Your task to perform on an android device: Do I have any events today? Image 0: 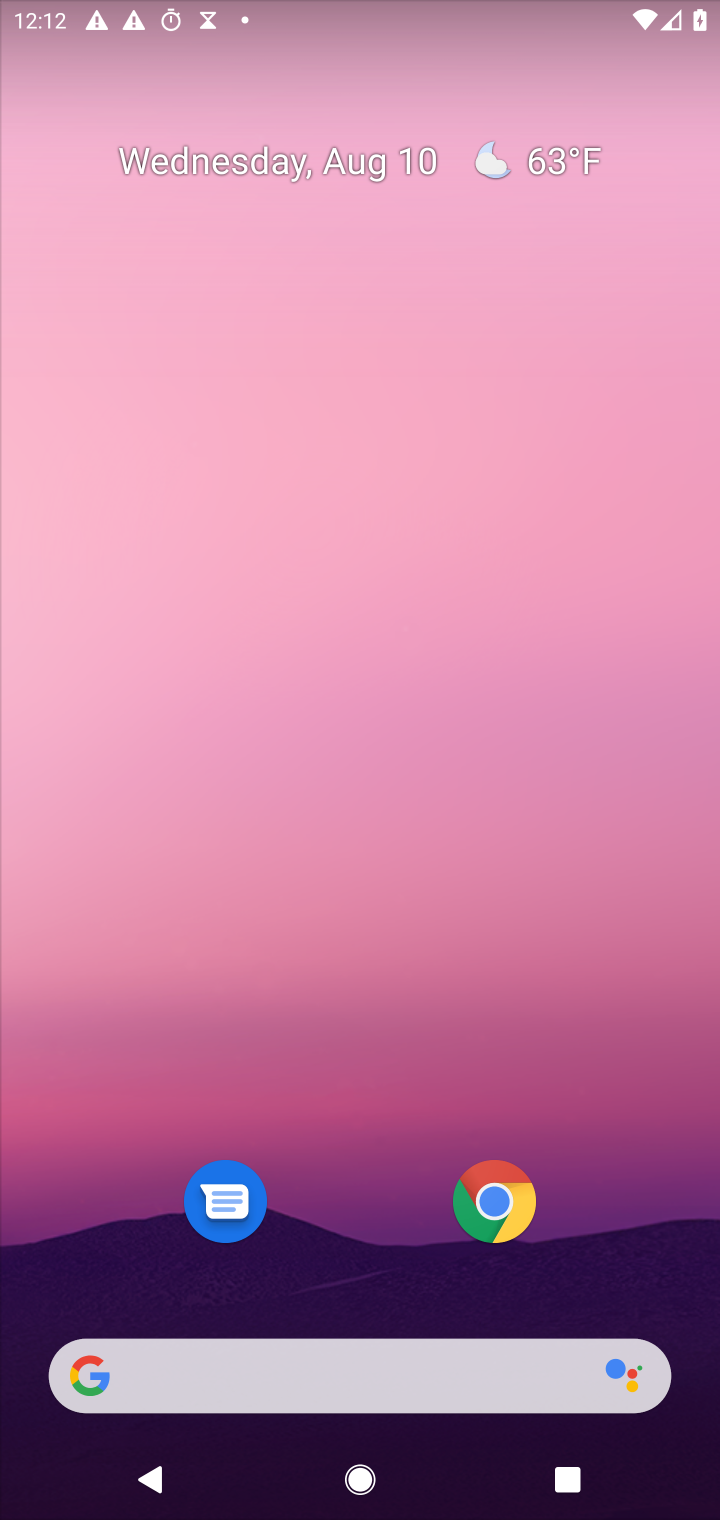
Step 0: press home button
Your task to perform on an android device: Do I have any events today? Image 1: 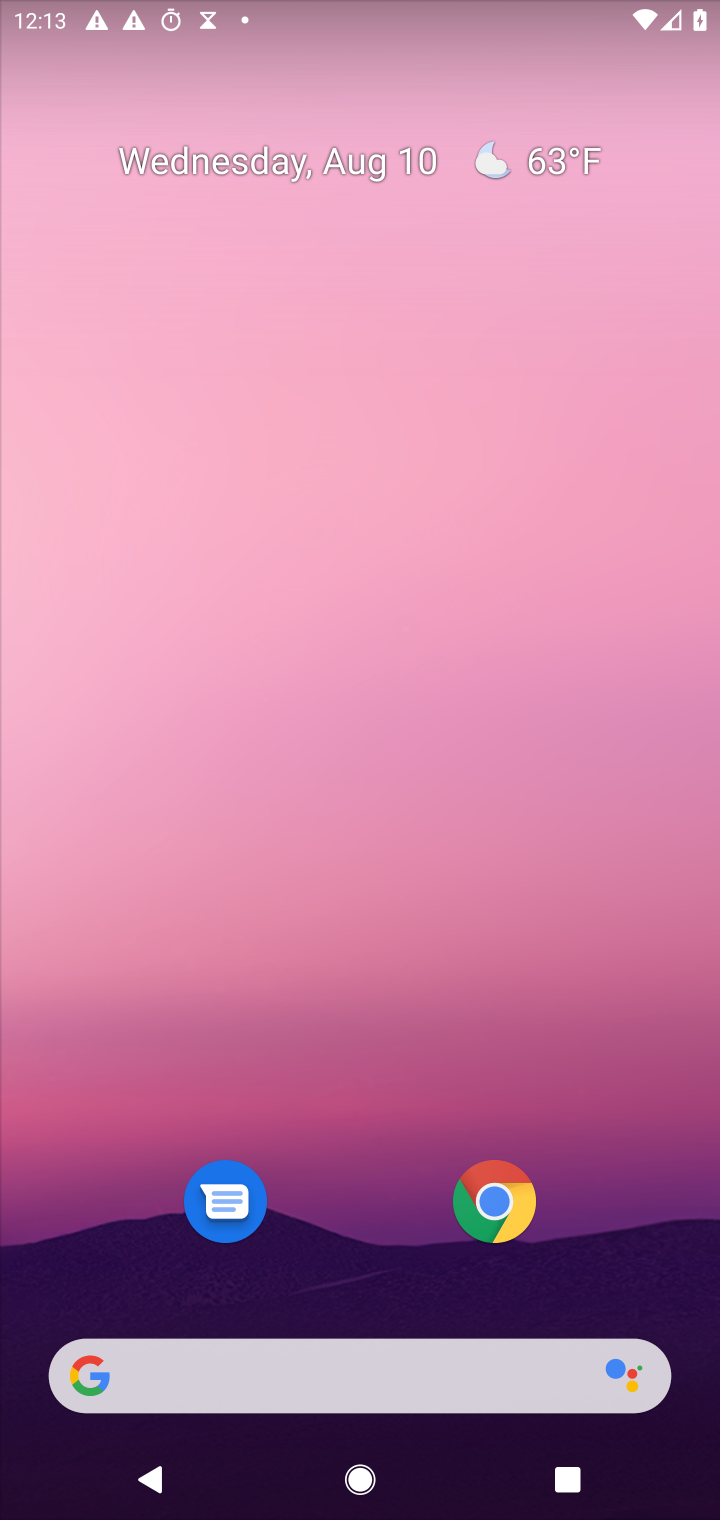
Step 1: drag from (348, 1277) to (639, 11)
Your task to perform on an android device: Do I have any events today? Image 2: 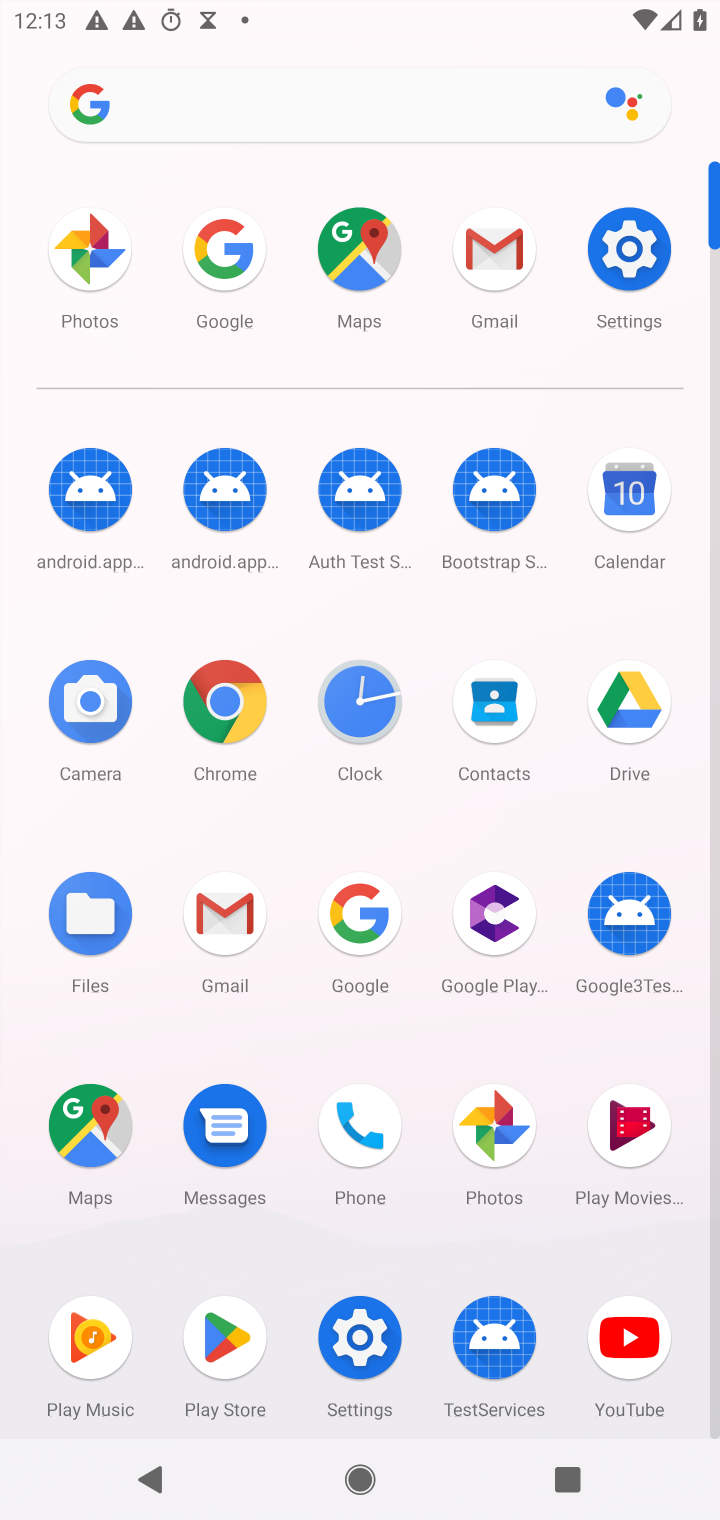
Step 2: click (634, 514)
Your task to perform on an android device: Do I have any events today? Image 3: 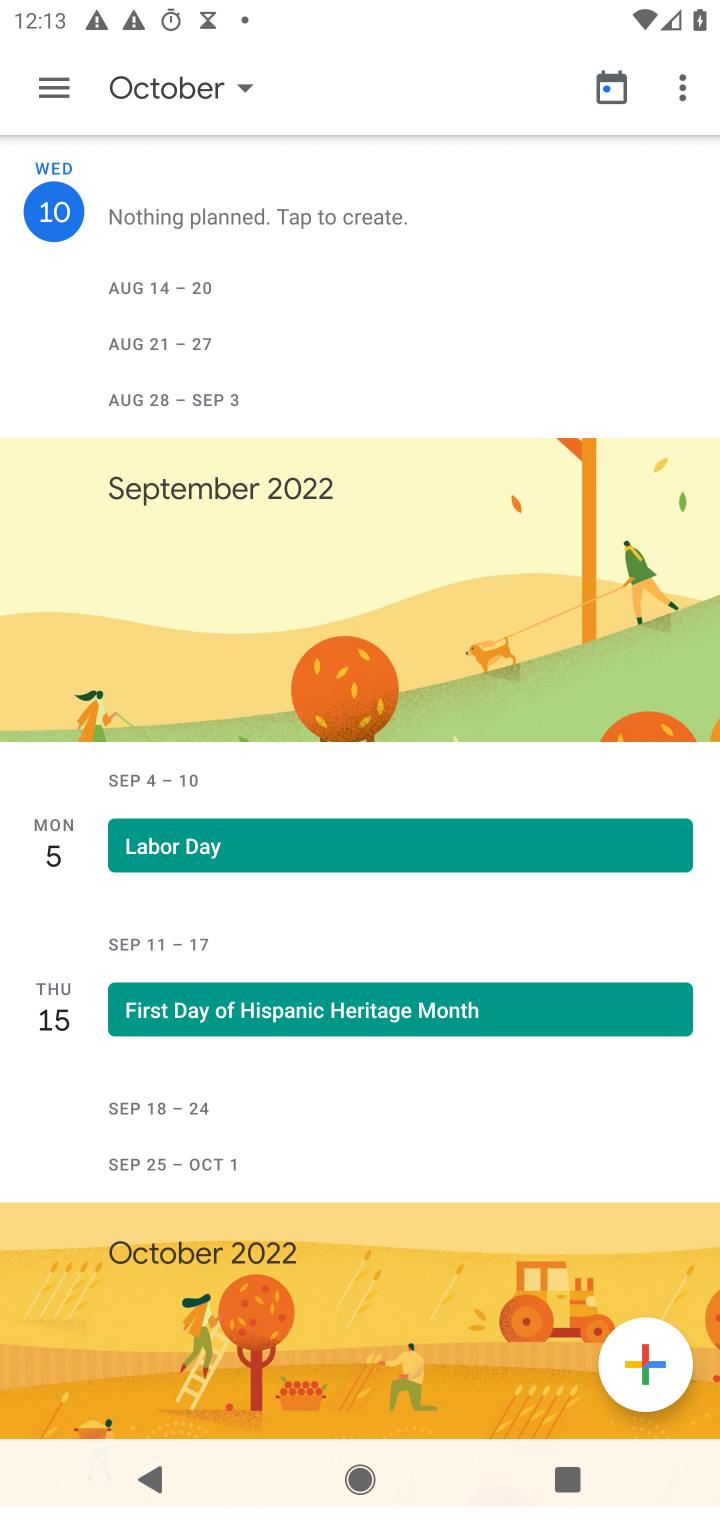
Step 3: click (49, 218)
Your task to perform on an android device: Do I have any events today? Image 4: 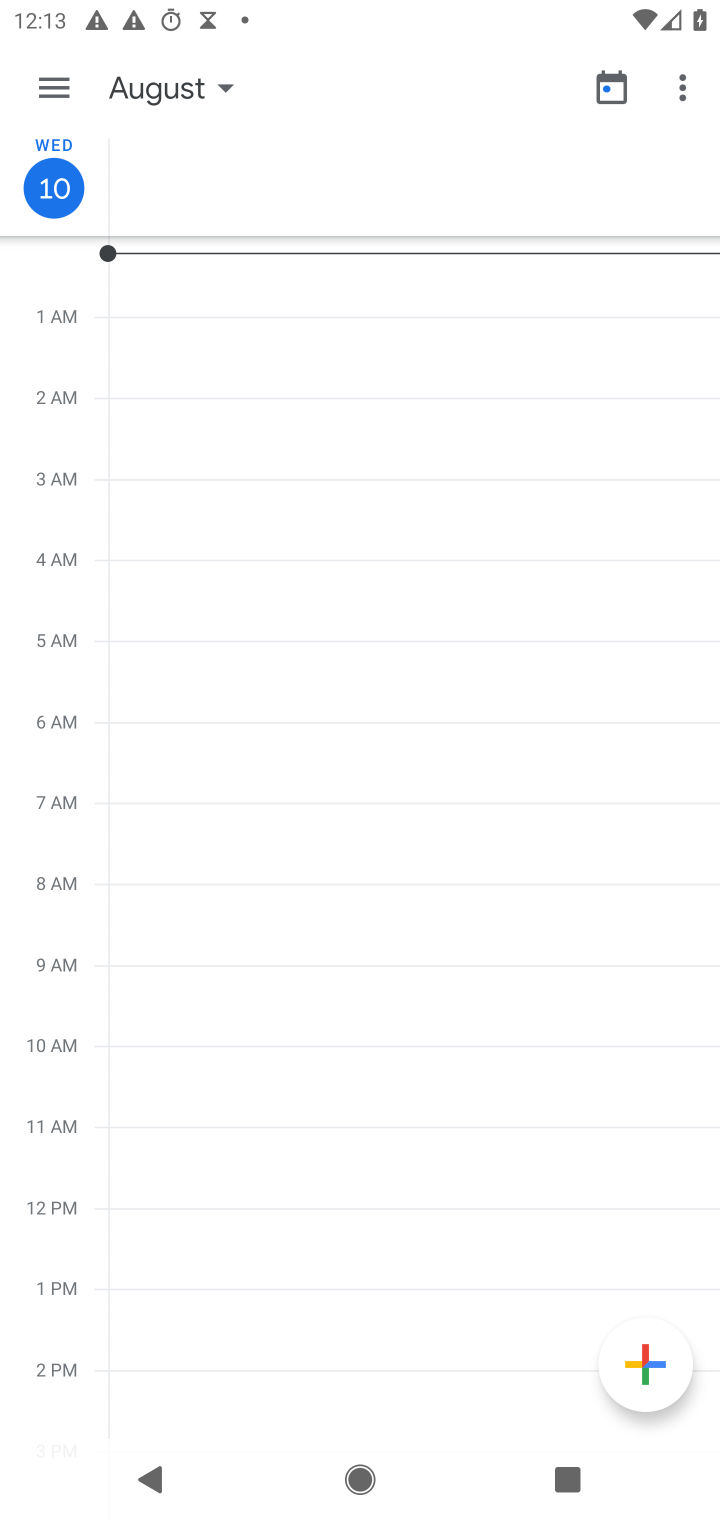
Step 4: task complete